Your task to perform on an android device: Empty the shopping cart on newegg.com. Search for "dell xps" on newegg.com, select the first entry, and add it to the cart. Image 0: 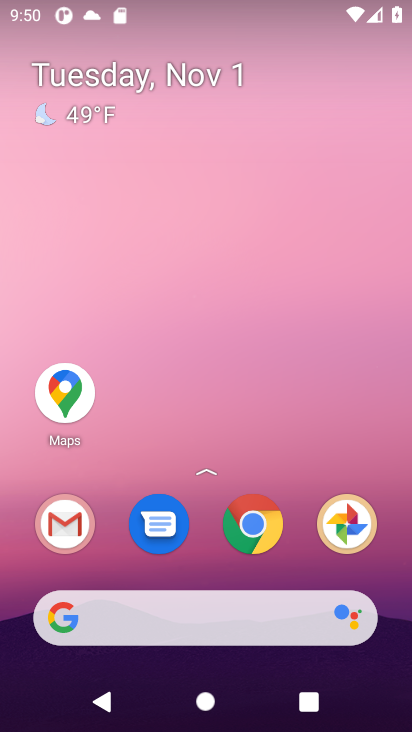
Step 0: press home button
Your task to perform on an android device: Empty the shopping cart on newegg.com. Search for "dell xps" on newegg.com, select the first entry, and add it to the cart. Image 1: 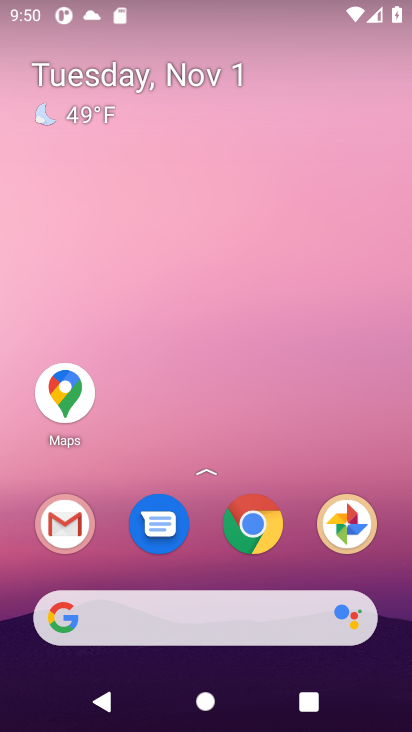
Step 1: click (87, 620)
Your task to perform on an android device: Empty the shopping cart on newegg.com. Search for "dell xps" on newegg.com, select the first entry, and add it to the cart. Image 2: 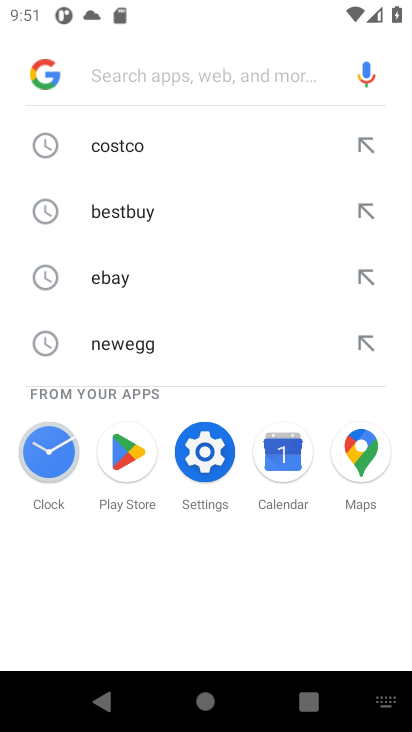
Step 2: type "newegg.com"
Your task to perform on an android device: Empty the shopping cart on newegg.com. Search for "dell xps" on newegg.com, select the first entry, and add it to the cart. Image 3: 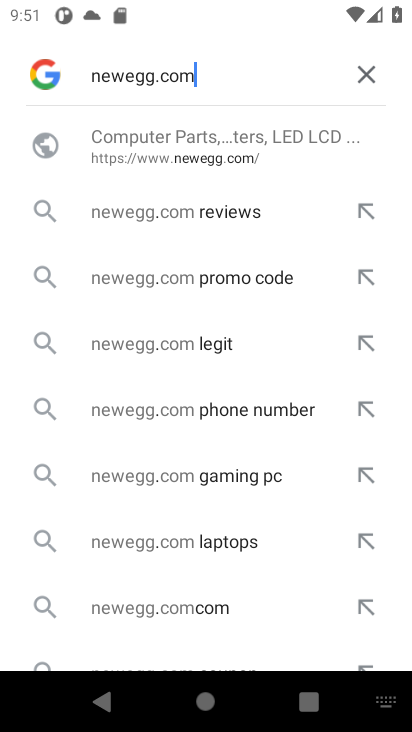
Step 3: press enter
Your task to perform on an android device: Empty the shopping cart on newegg.com. Search for "dell xps" on newegg.com, select the first entry, and add it to the cart. Image 4: 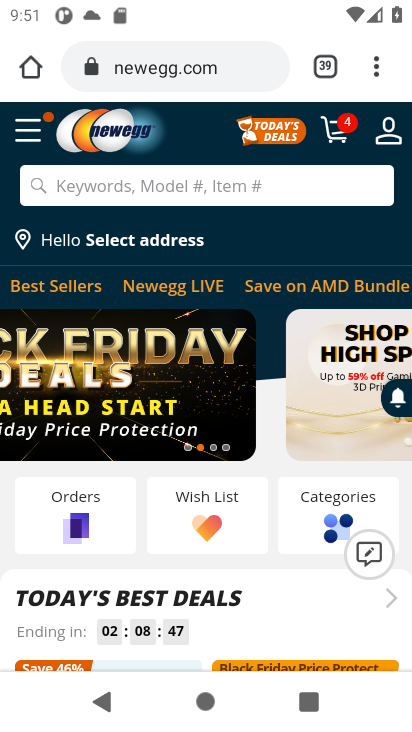
Step 4: click (336, 126)
Your task to perform on an android device: Empty the shopping cart on newegg.com. Search for "dell xps" on newegg.com, select the first entry, and add it to the cart. Image 5: 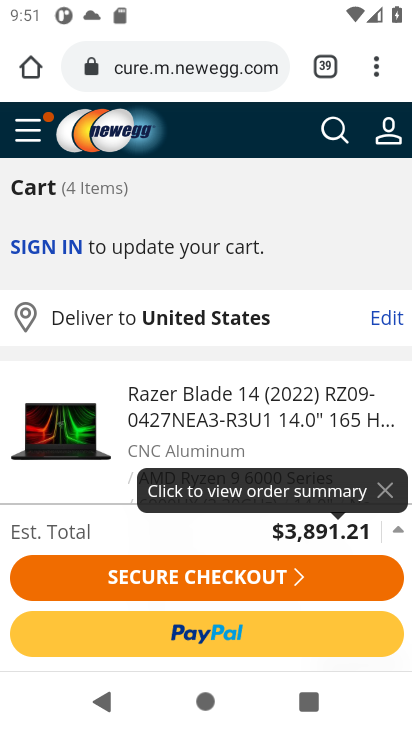
Step 5: drag from (145, 441) to (149, 228)
Your task to perform on an android device: Empty the shopping cart on newegg.com. Search for "dell xps" on newegg.com, select the first entry, and add it to the cart. Image 6: 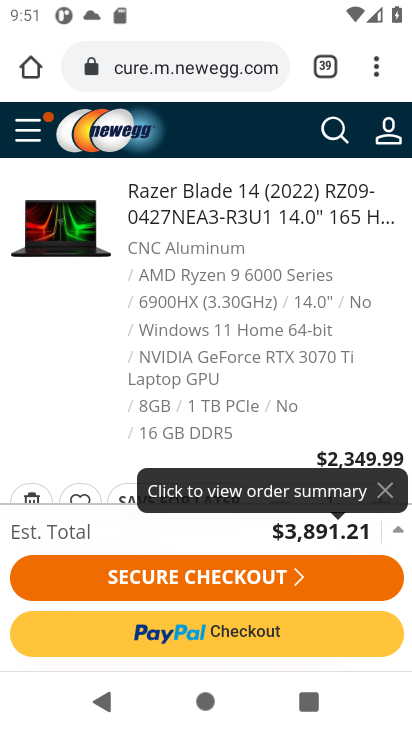
Step 6: drag from (149, 368) to (172, 218)
Your task to perform on an android device: Empty the shopping cart on newegg.com. Search for "dell xps" on newegg.com, select the first entry, and add it to the cart. Image 7: 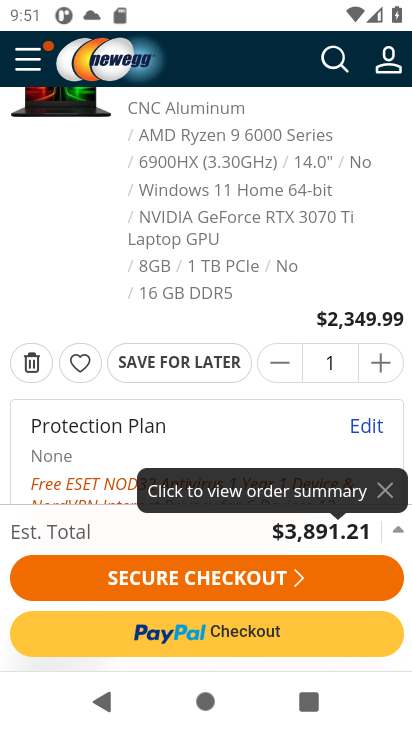
Step 7: click (22, 357)
Your task to perform on an android device: Empty the shopping cart on newegg.com. Search for "dell xps" on newegg.com, select the first entry, and add it to the cart. Image 8: 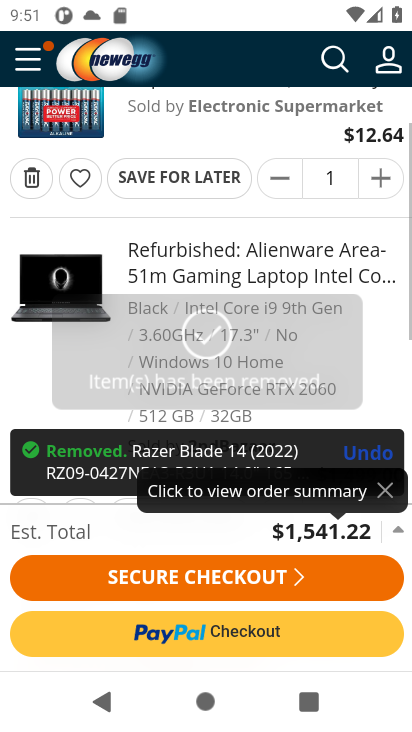
Step 8: click (27, 269)
Your task to perform on an android device: Empty the shopping cart on newegg.com. Search for "dell xps" on newegg.com, select the first entry, and add it to the cart. Image 9: 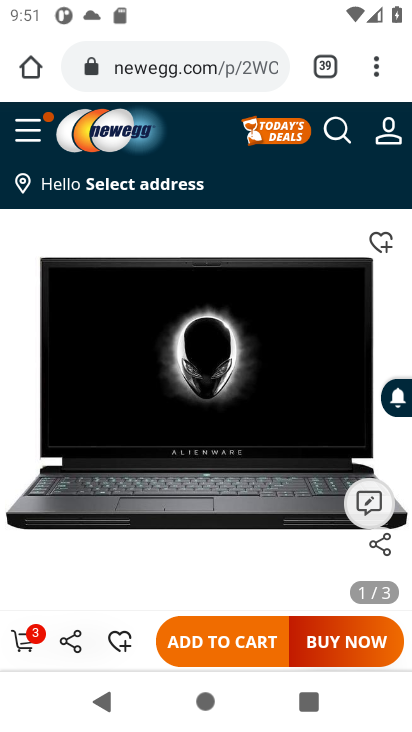
Step 9: press back button
Your task to perform on an android device: Empty the shopping cart on newegg.com. Search for "dell xps" on newegg.com, select the first entry, and add it to the cart. Image 10: 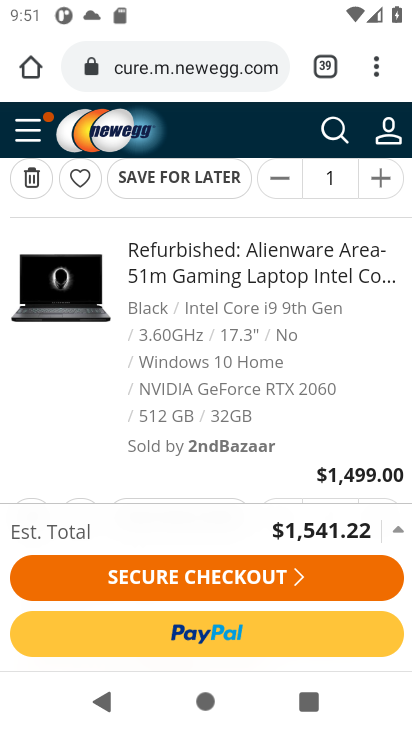
Step 10: drag from (62, 377) to (85, 265)
Your task to perform on an android device: Empty the shopping cart on newegg.com. Search for "dell xps" on newegg.com, select the first entry, and add it to the cart. Image 11: 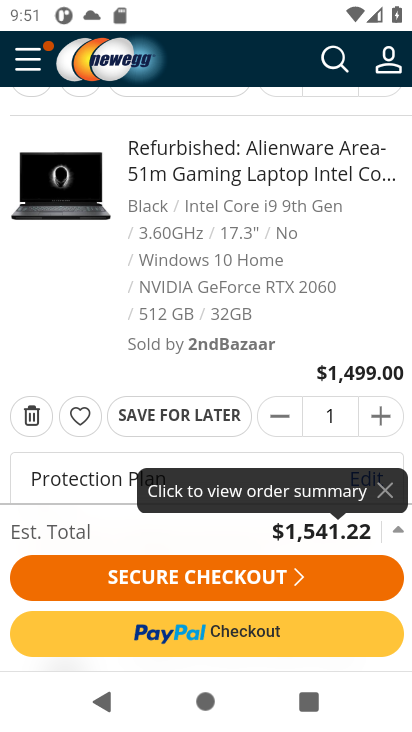
Step 11: click (28, 418)
Your task to perform on an android device: Empty the shopping cart on newegg.com. Search for "dell xps" on newegg.com, select the first entry, and add it to the cart. Image 12: 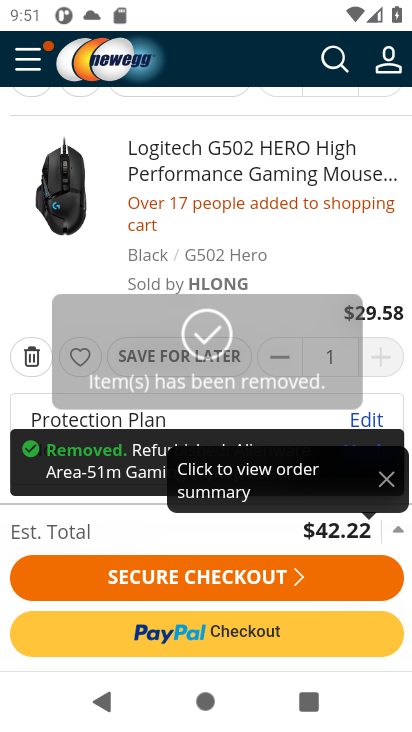
Step 12: click (31, 354)
Your task to perform on an android device: Empty the shopping cart on newegg.com. Search for "dell xps" on newegg.com, select the first entry, and add it to the cart. Image 13: 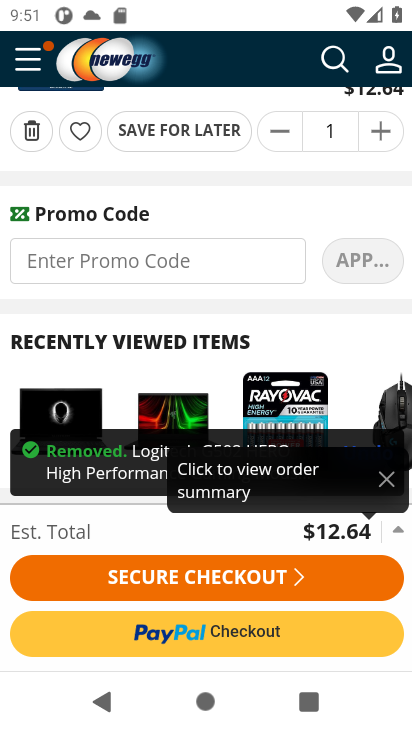
Step 13: drag from (57, 332) to (75, 183)
Your task to perform on an android device: Empty the shopping cart on newegg.com. Search for "dell xps" on newegg.com, select the first entry, and add it to the cart. Image 14: 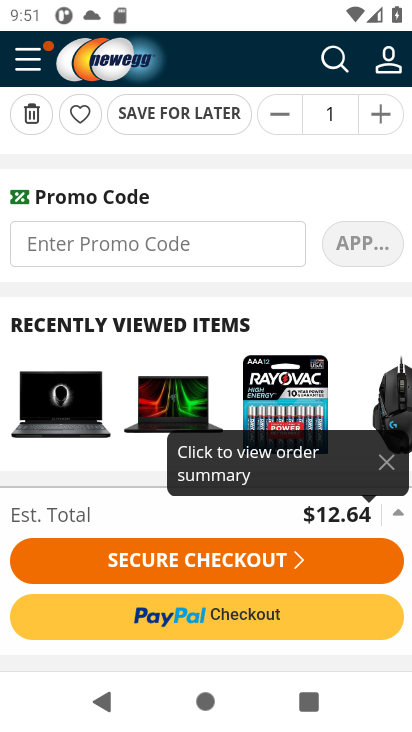
Step 14: click (35, 116)
Your task to perform on an android device: Empty the shopping cart on newegg.com. Search for "dell xps" on newegg.com, select the first entry, and add it to the cart. Image 15: 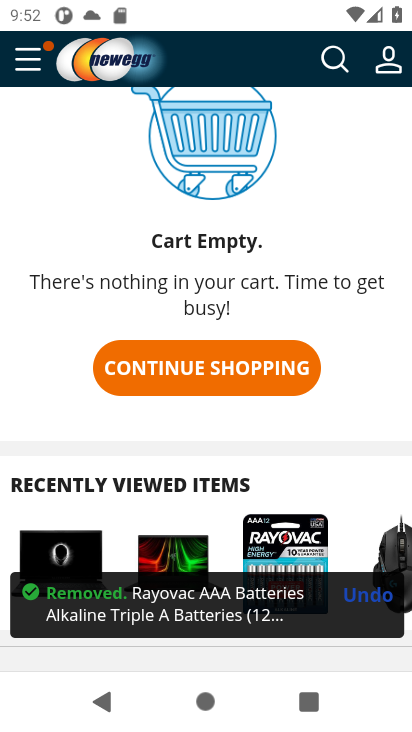
Step 15: click (337, 62)
Your task to perform on an android device: Empty the shopping cart on newegg.com. Search for "dell xps" on newegg.com, select the first entry, and add it to the cart. Image 16: 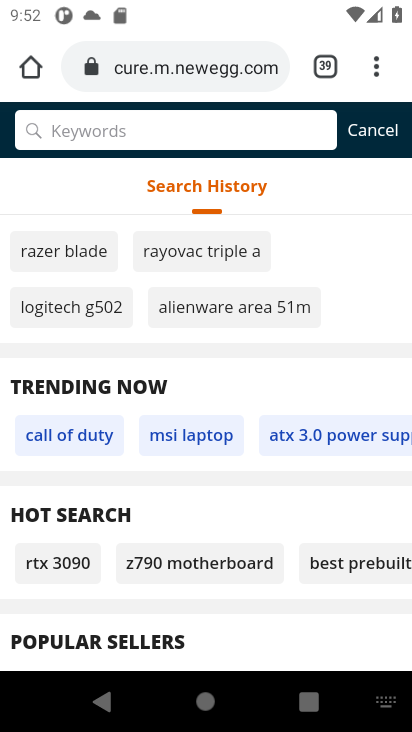
Step 16: type "dell xps"
Your task to perform on an android device: Empty the shopping cart on newegg.com. Search for "dell xps" on newegg.com, select the first entry, and add it to the cart. Image 17: 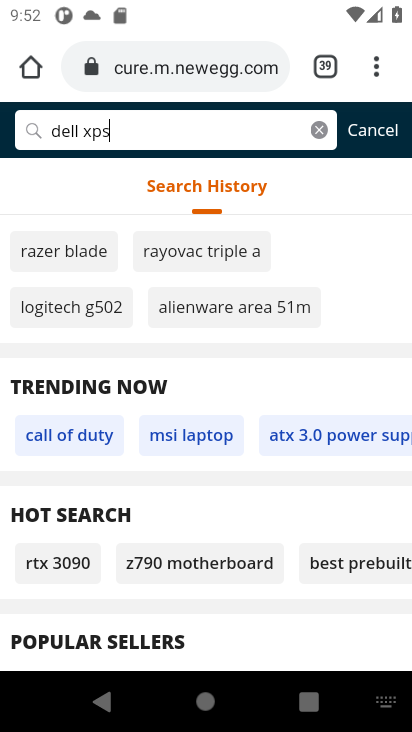
Step 17: press enter
Your task to perform on an android device: Empty the shopping cart on newegg.com. Search for "dell xps" on newegg.com, select the first entry, and add it to the cart. Image 18: 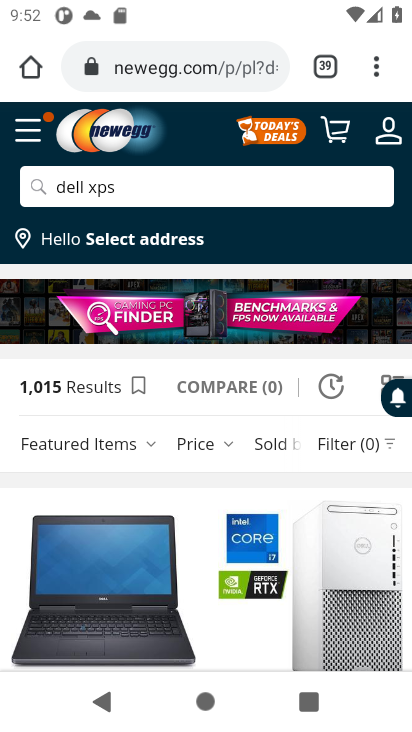
Step 18: drag from (186, 532) to (164, 223)
Your task to perform on an android device: Empty the shopping cart on newegg.com. Search for "dell xps" on newegg.com, select the first entry, and add it to the cart. Image 19: 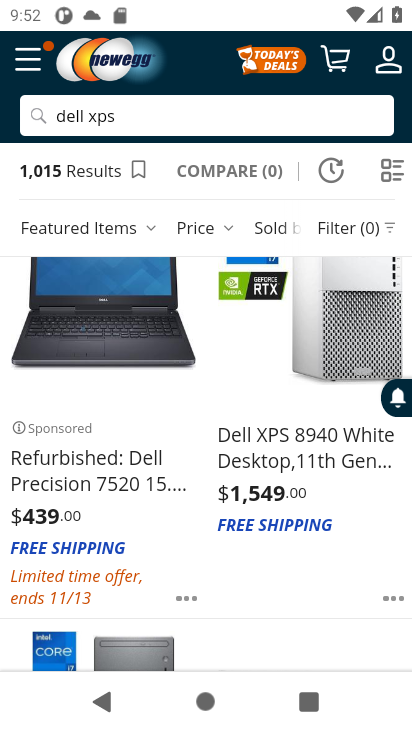
Step 19: click (308, 438)
Your task to perform on an android device: Empty the shopping cart on newegg.com. Search for "dell xps" on newegg.com, select the first entry, and add it to the cart. Image 20: 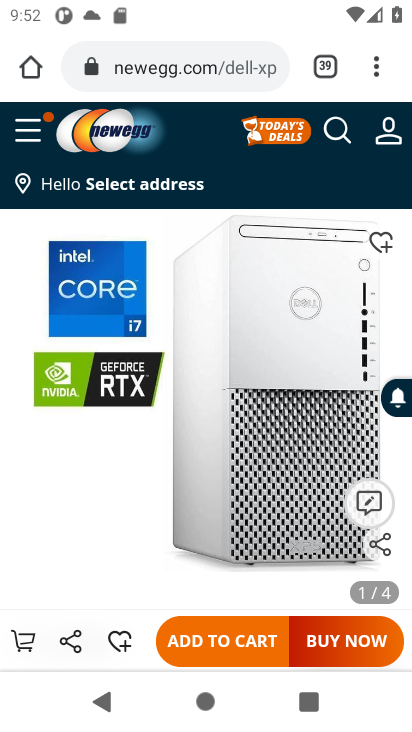
Step 20: click (202, 649)
Your task to perform on an android device: Empty the shopping cart on newegg.com. Search for "dell xps" on newegg.com, select the first entry, and add it to the cart. Image 21: 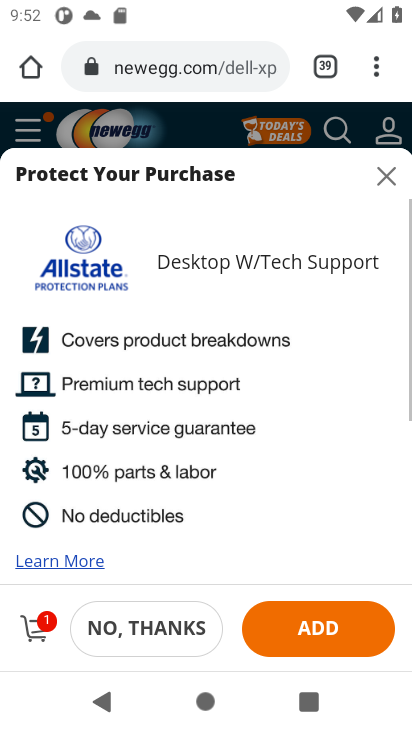
Step 21: task complete